Your task to perform on an android device: set an alarm Image 0: 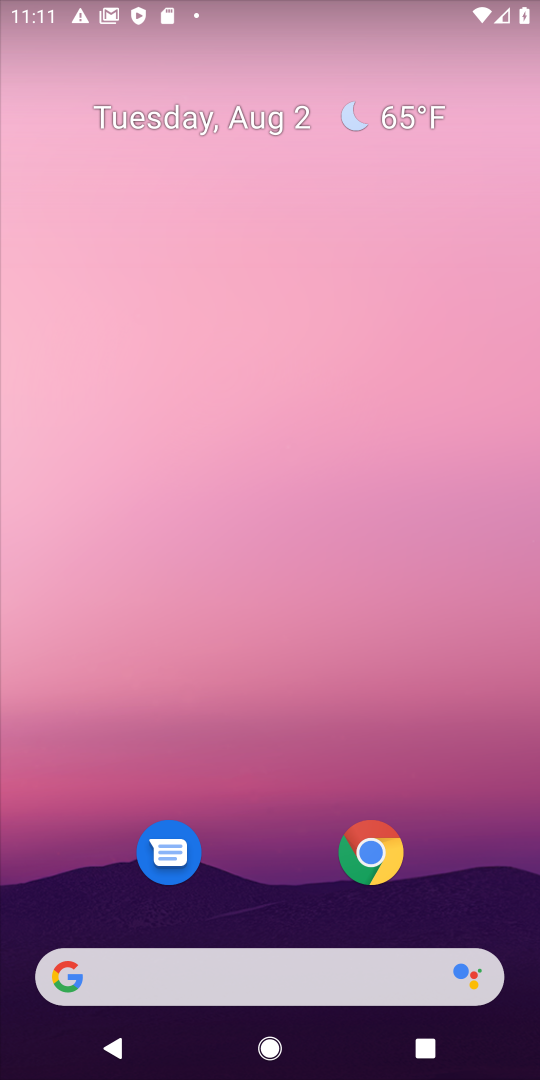
Step 0: drag from (65, 998) to (249, 10)
Your task to perform on an android device: set an alarm Image 1: 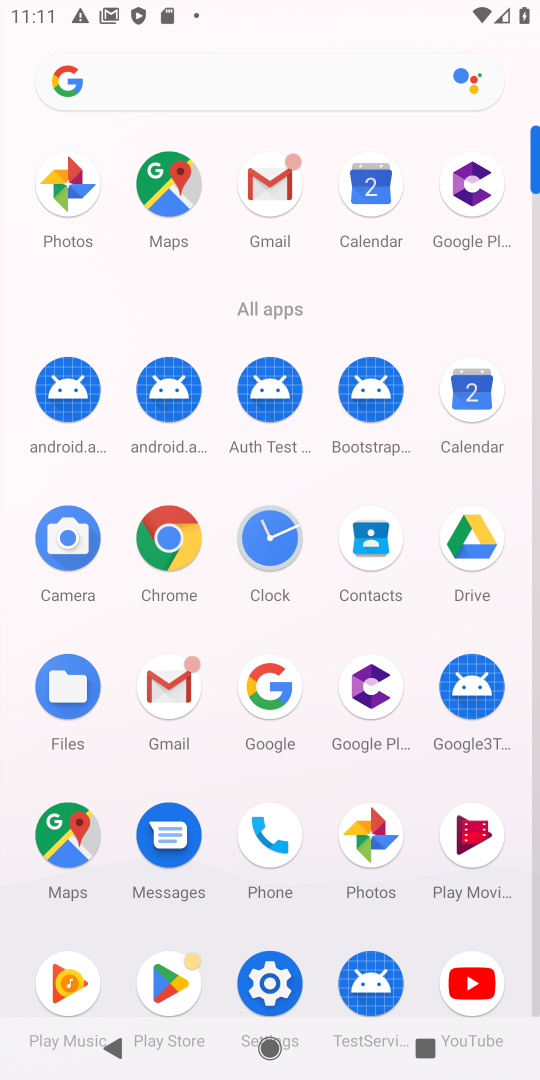
Step 1: click (260, 556)
Your task to perform on an android device: set an alarm Image 2: 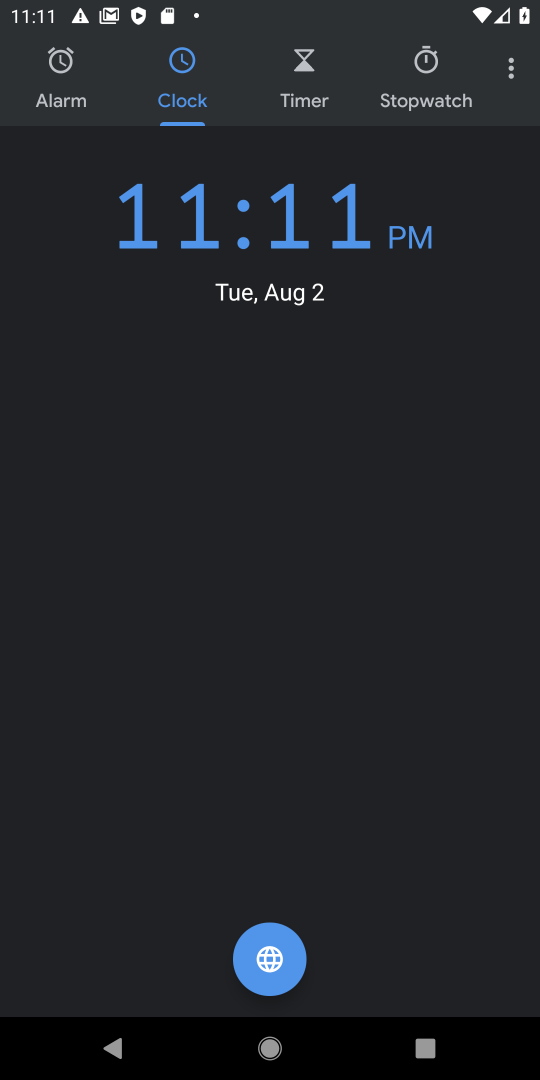
Step 2: click (52, 81)
Your task to perform on an android device: set an alarm Image 3: 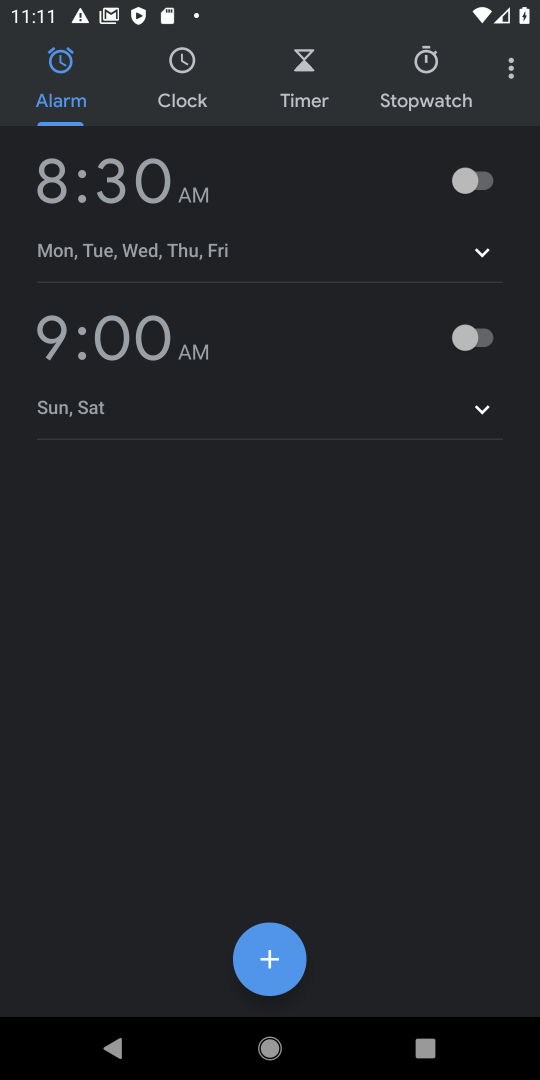
Step 3: click (471, 176)
Your task to perform on an android device: set an alarm Image 4: 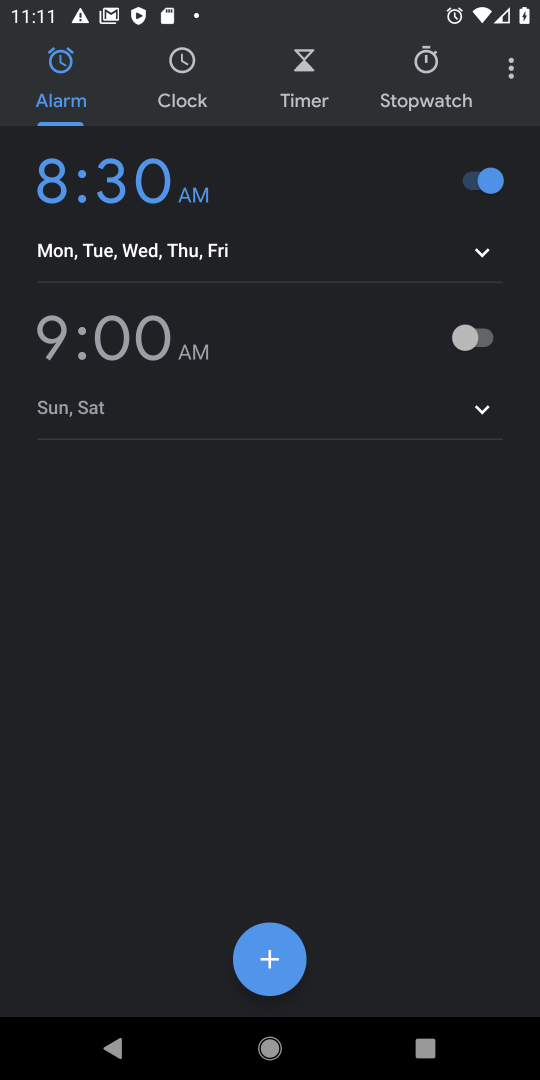
Step 4: task complete